Your task to perform on an android device: visit the assistant section in the google photos Image 0: 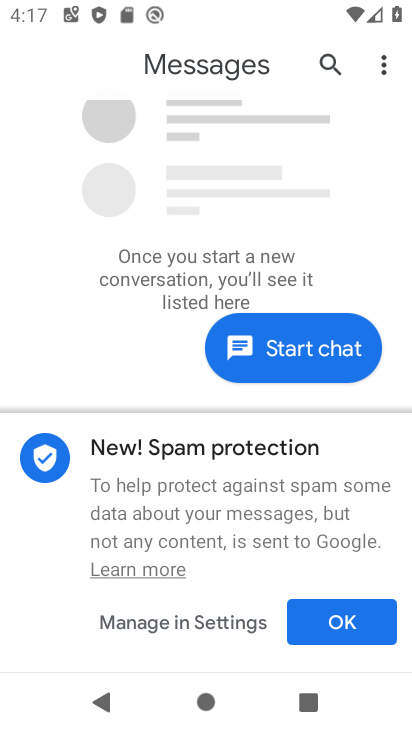
Step 0: press home button
Your task to perform on an android device: visit the assistant section in the google photos Image 1: 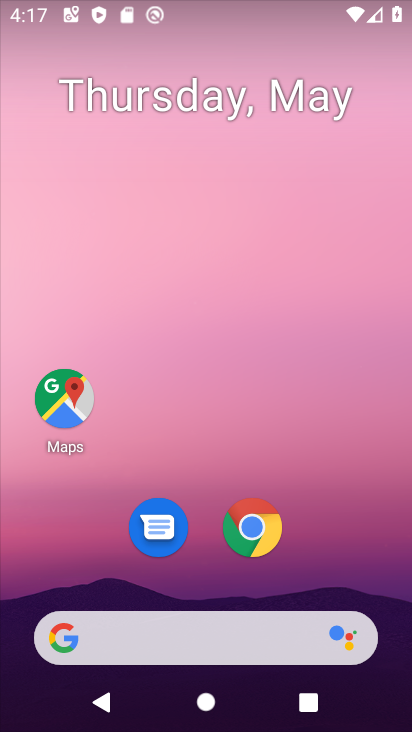
Step 1: drag from (373, 448) to (311, 33)
Your task to perform on an android device: visit the assistant section in the google photos Image 2: 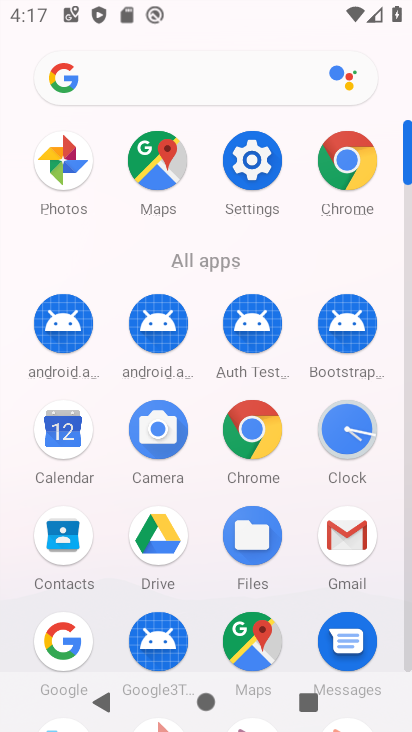
Step 2: click (75, 160)
Your task to perform on an android device: visit the assistant section in the google photos Image 3: 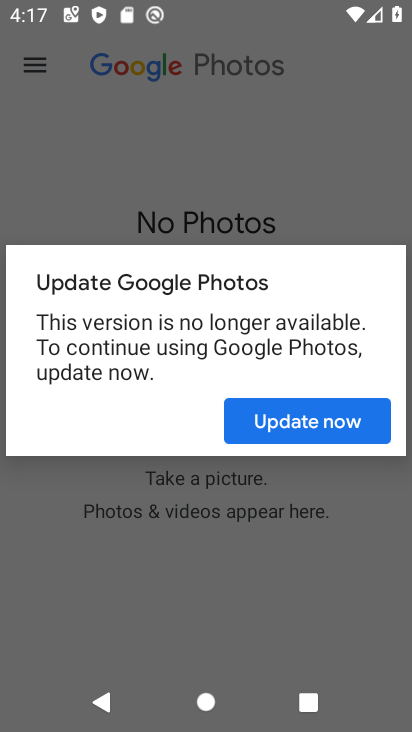
Step 3: click (341, 405)
Your task to perform on an android device: visit the assistant section in the google photos Image 4: 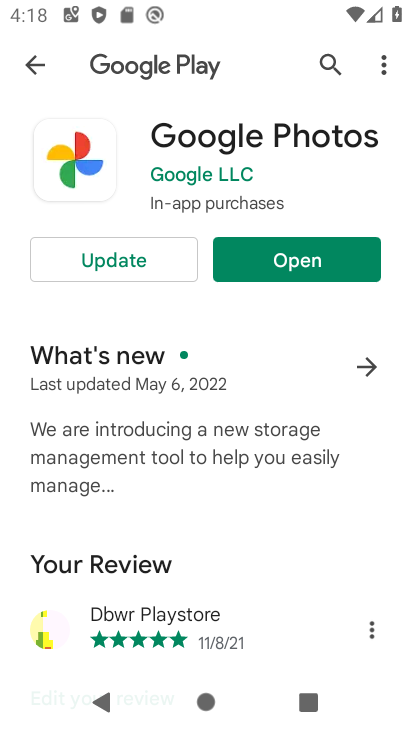
Step 4: click (132, 260)
Your task to perform on an android device: visit the assistant section in the google photos Image 5: 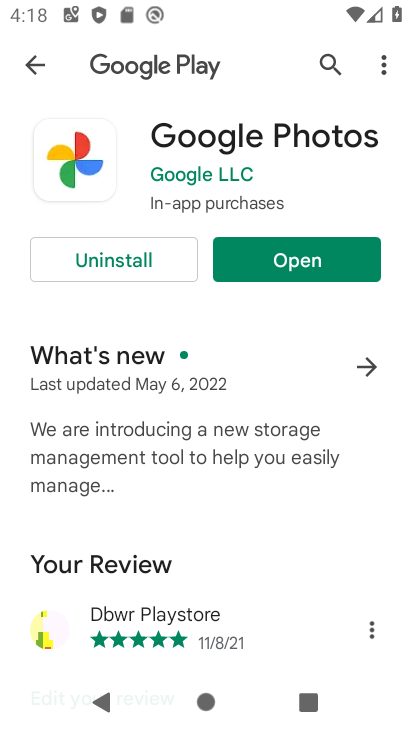
Step 5: click (276, 265)
Your task to perform on an android device: visit the assistant section in the google photos Image 6: 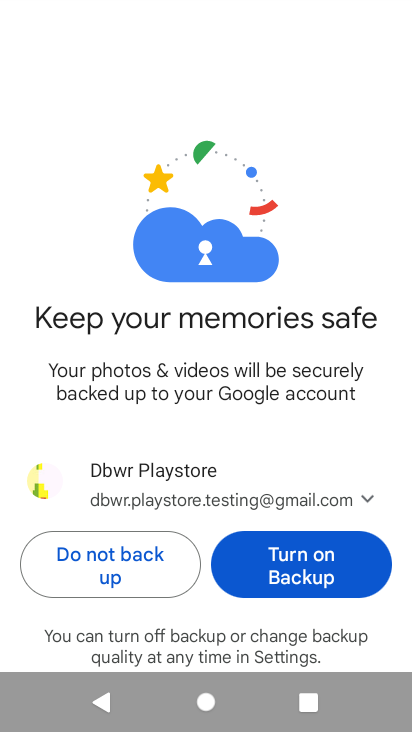
Step 6: click (324, 564)
Your task to perform on an android device: visit the assistant section in the google photos Image 7: 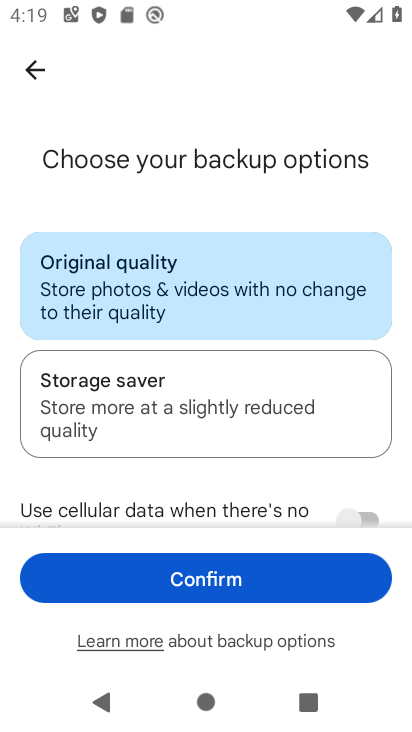
Step 7: click (324, 564)
Your task to perform on an android device: visit the assistant section in the google photos Image 8: 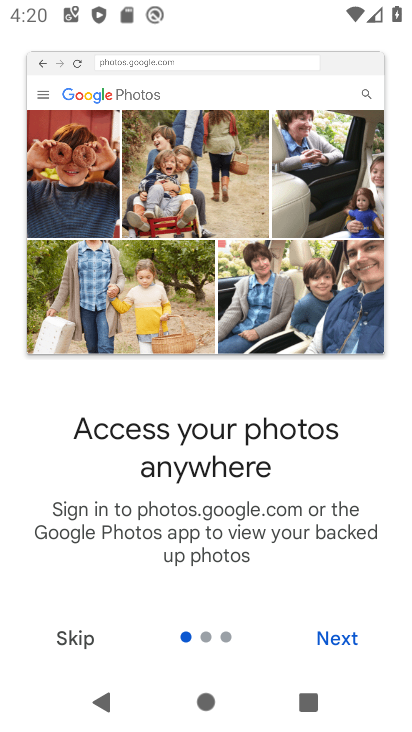
Step 8: click (344, 637)
Your task to perform on an android device: visit the assistant section in the google photos Image 9: 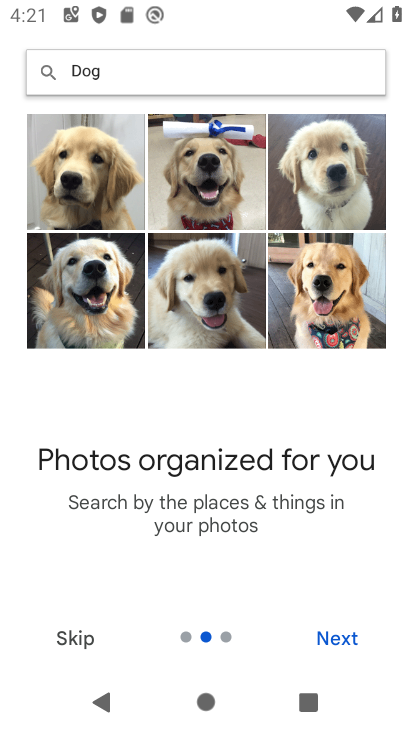
Step 9: click (344, 637)
Your task to perform on an android device: visit the assistant section in the google photos Image 10: 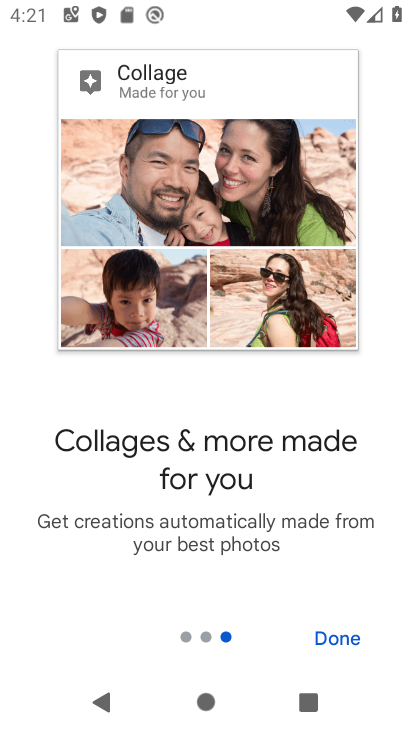
Step 10: click (344, 637)
Your task to perform on an android device: visit the assistant section in the google photos Image 11: 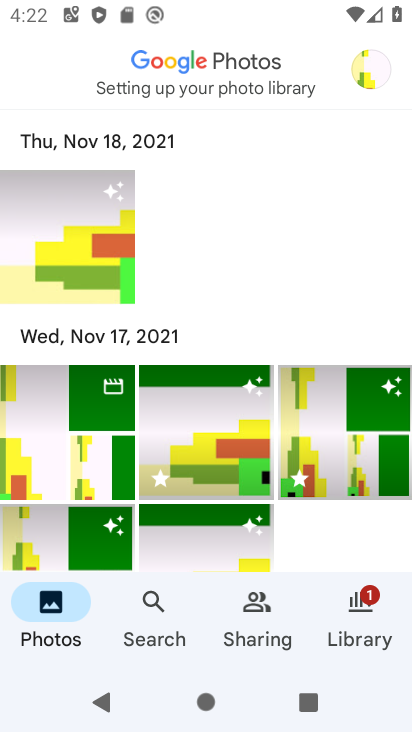
Step 11: task complete